Your task to perform on an android device: turn on improve location accuracy Image 0: 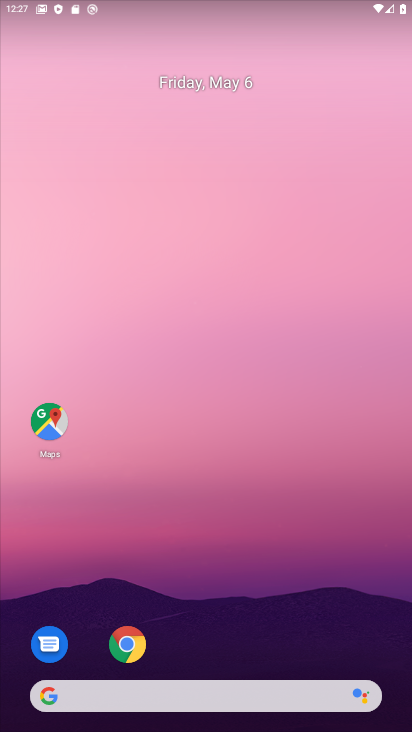
Step 0: drag from (240, 727) to (255, 9)
Your task to perform on an android device: turn on improve location accuracy Image 1: 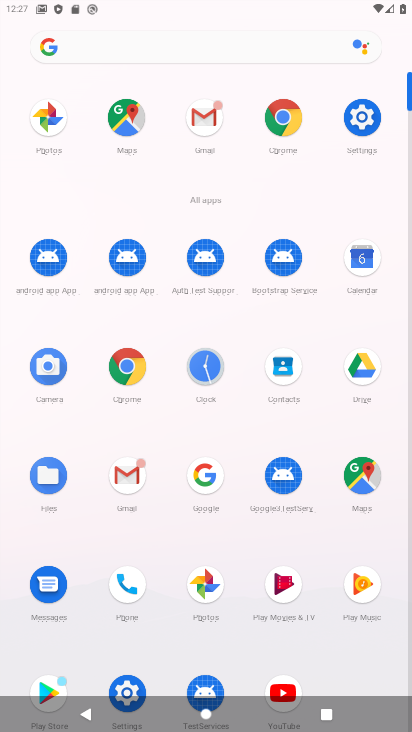
Step 1: click (366, 108)
Your task to perform on an android device: turn on improve location accuracy Image 2: 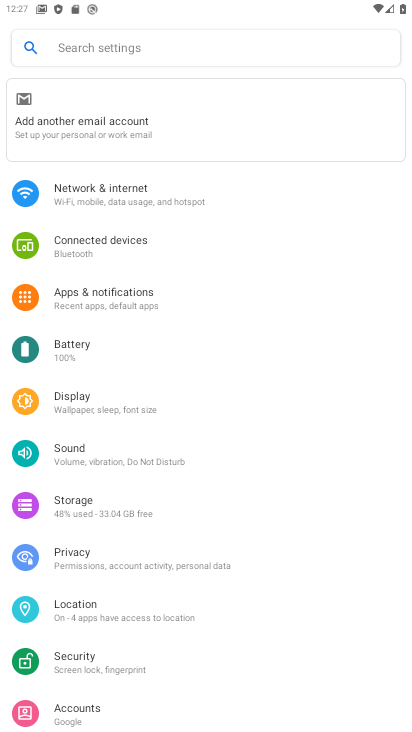
Step 2: click (108, 610)
Your task to perform on an android device: turn on improve location accuracy Image 3: 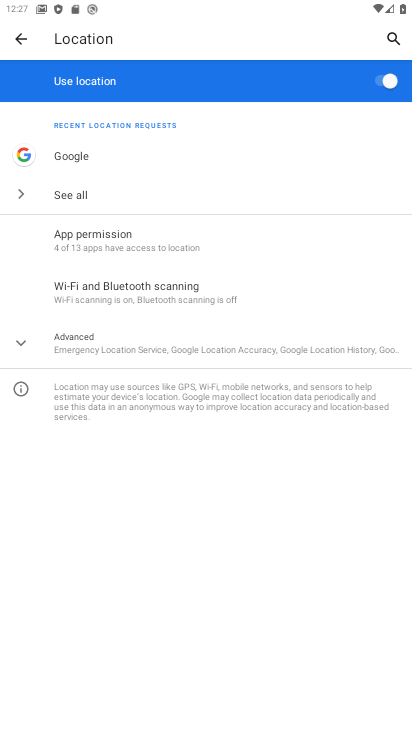
Step 3: click (143, 333)
Your task to perform on an android device: turn on improve location accuracy Image 4: 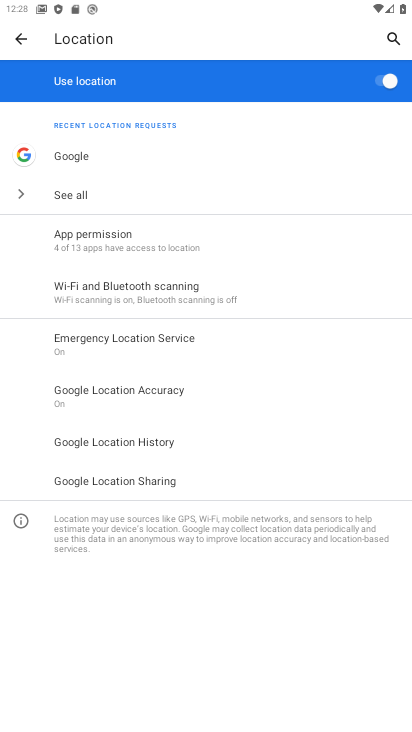
Step 4: click (175, 398)
Your task to perform on an android device: turn on improve location accuracy Image 5: 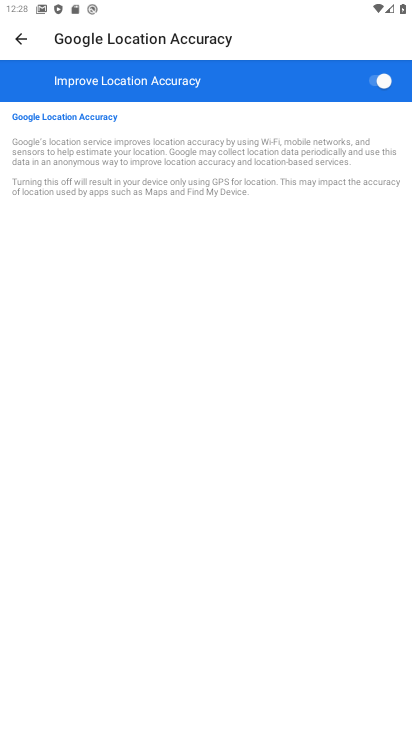
Step 5: task complete